Your task to perform on an android device: Open Google Chrome Image 0: 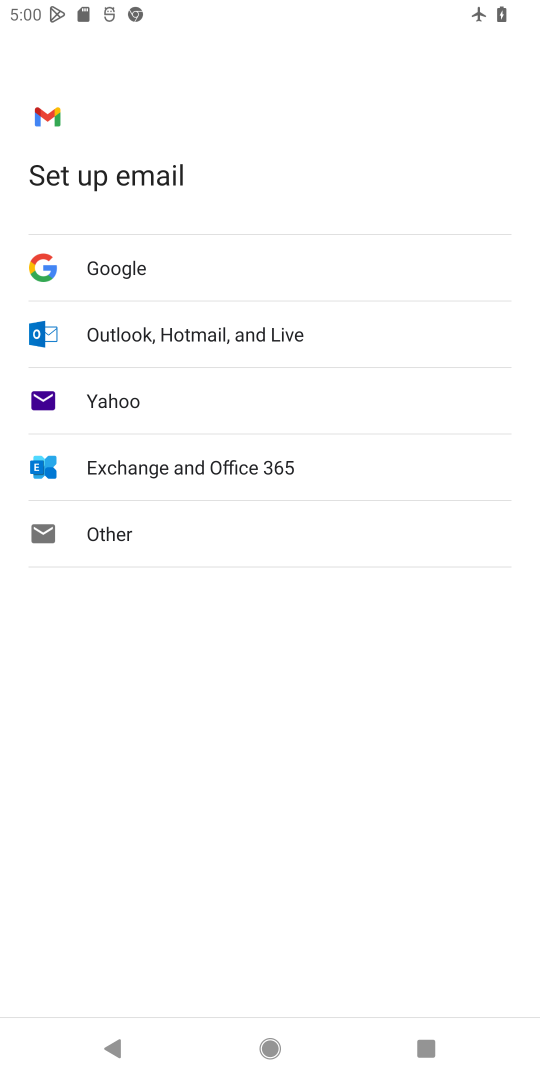
Step 0: press home button
Your task to perform on an android device: Open Google Chrome Image 1: 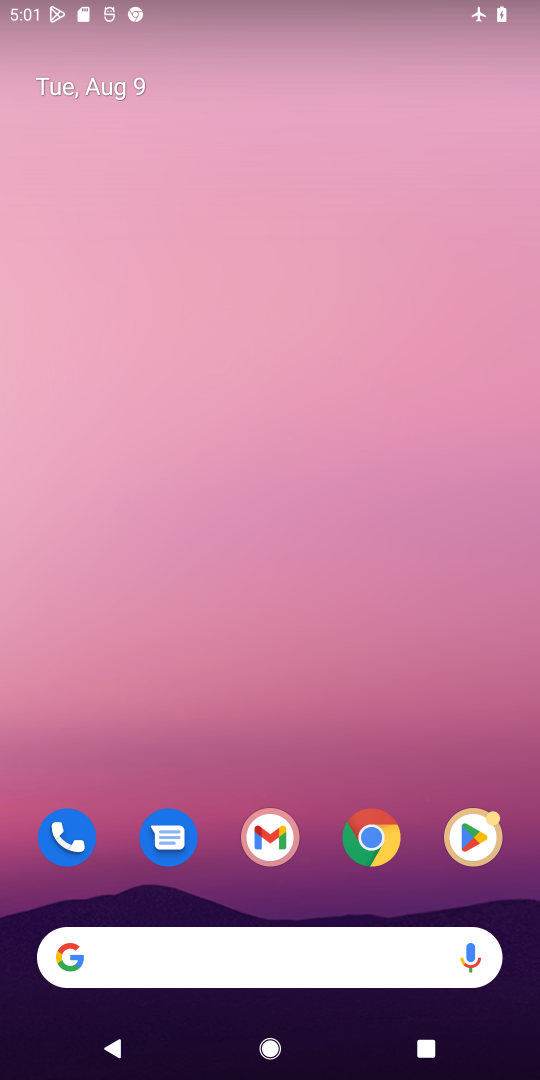
Step 1: drag from (165, 901) to (254, 113)
Your task to perform on an android device: Open Google Chrome Image 2: 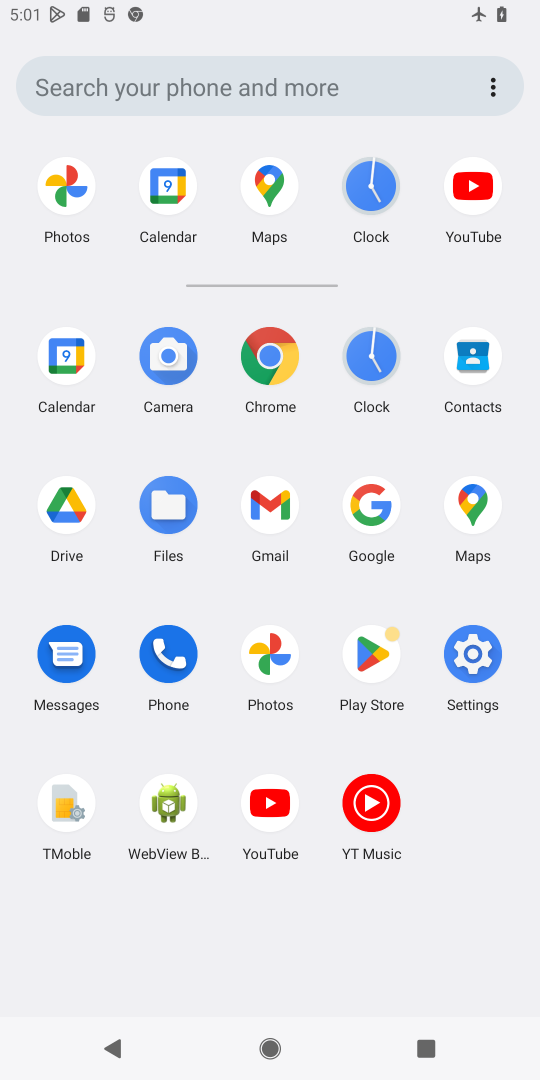
Step 2: click (257, 372)
Your task to perform on an android device: Open Google Chrome Image 3: 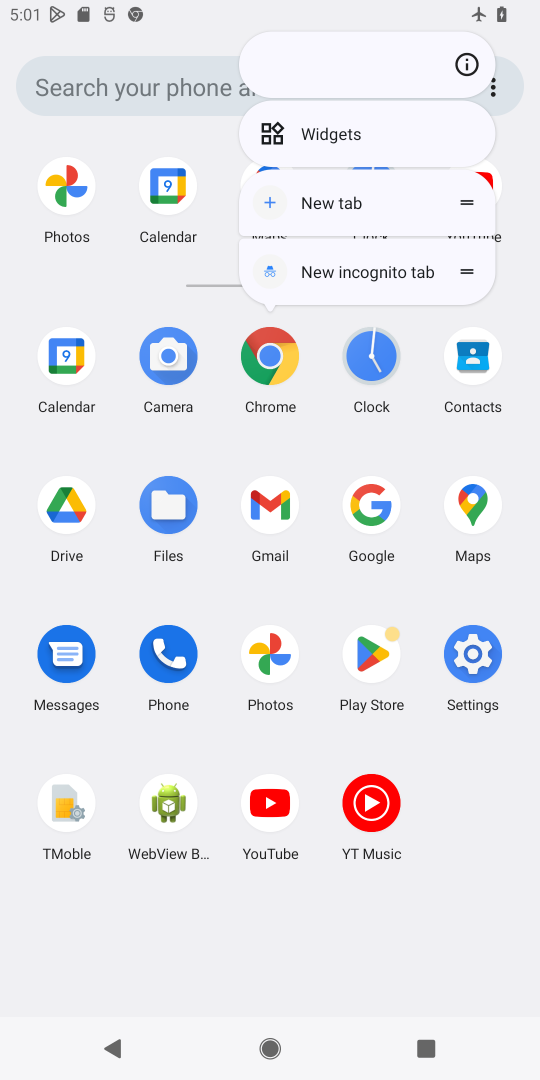
Step 3: click (373, 485)
Your task to perform on an android device: Open Google Chrome Image 4: 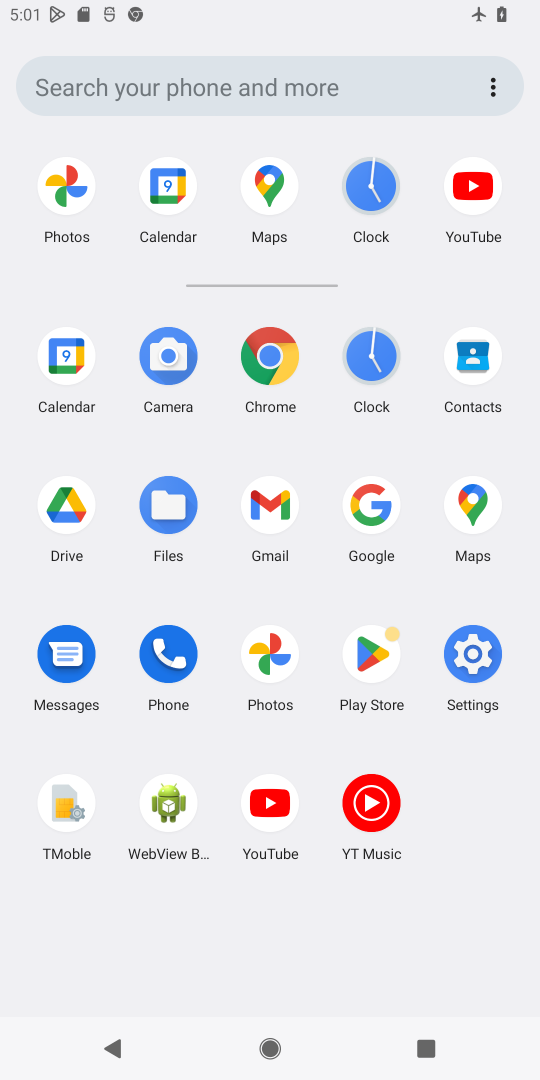
Step 4: click (373, 511)
Your task to perform on an android device: Open Google Chrome Image 5: 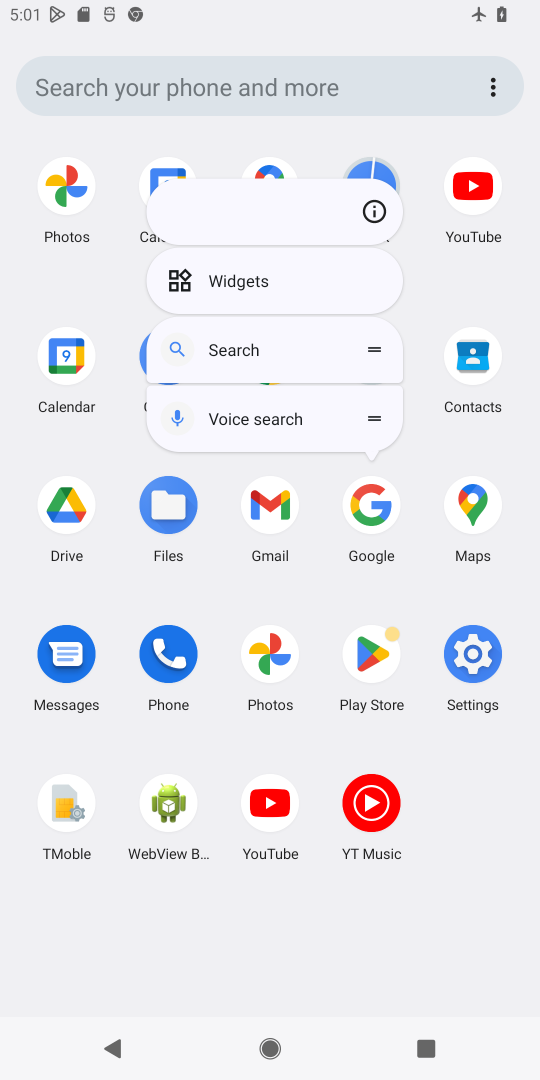
Step 5: click (373, 511)
Your task to perform on an android device: Open Google Chrome Image 6: 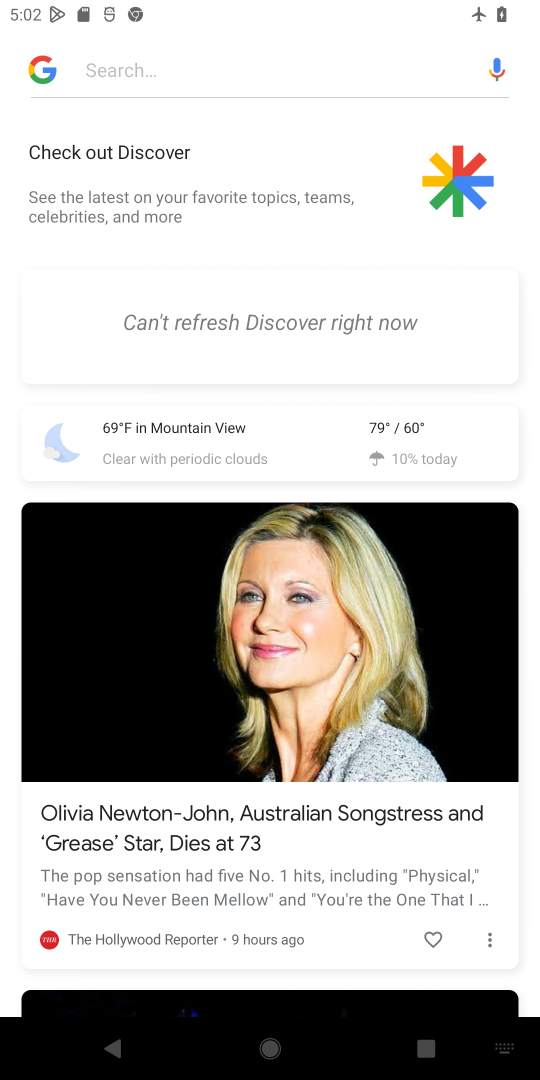
Step 6: task complete